Your task to perform on an android device: install app "DoorDash - Food Delivery" Image 0: 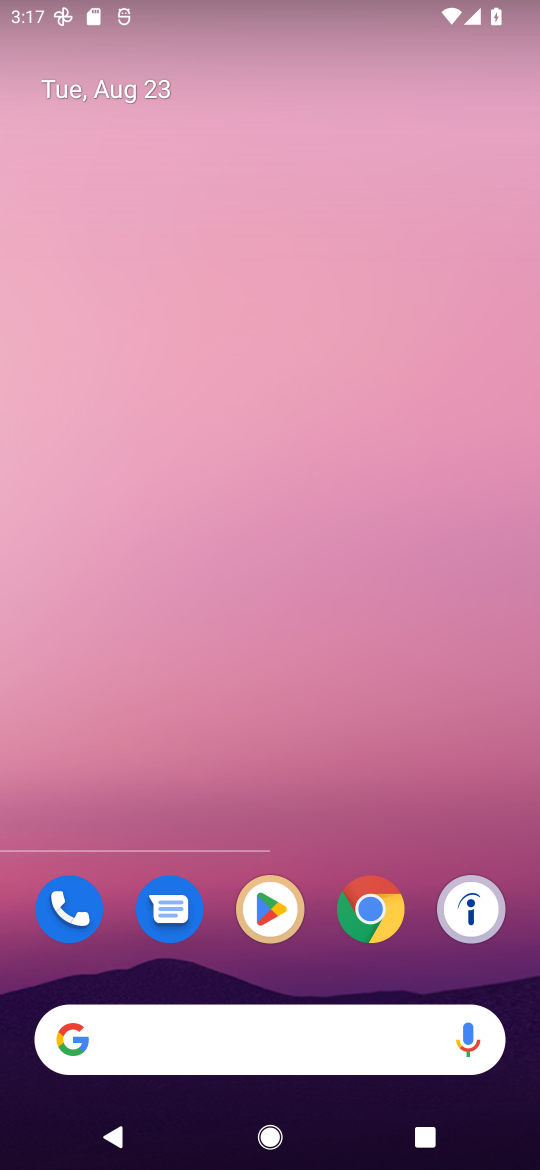
Step 0: press home button
Your task to perform on an android device: install app "DoorDash - Food Delivery" Image 1: 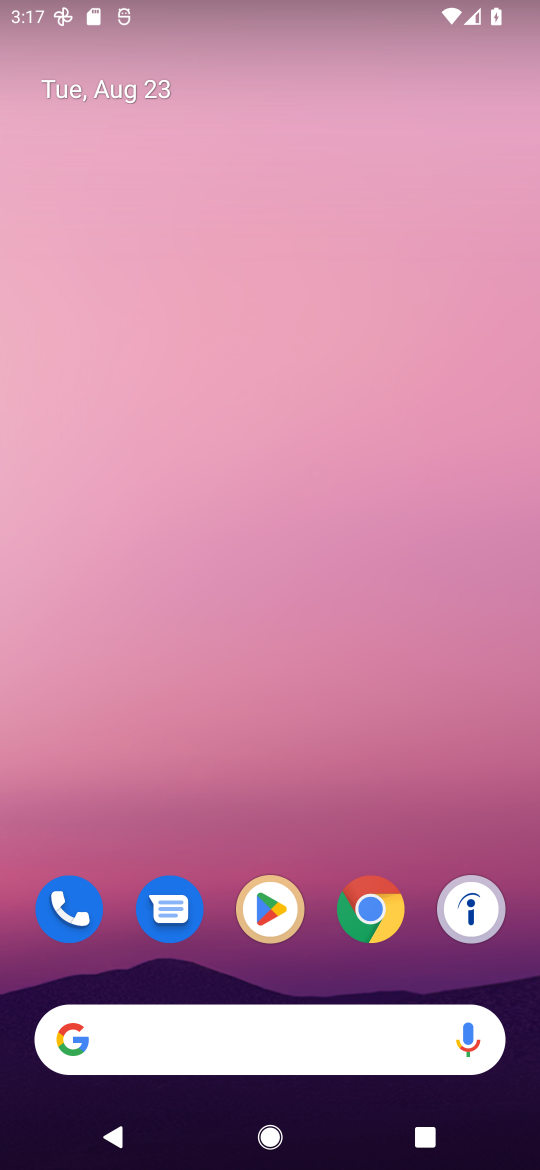
Step 1: click (262, 902)
Your task to perform on an android device: install app "DoorDash - Food Delivery" Image 2: 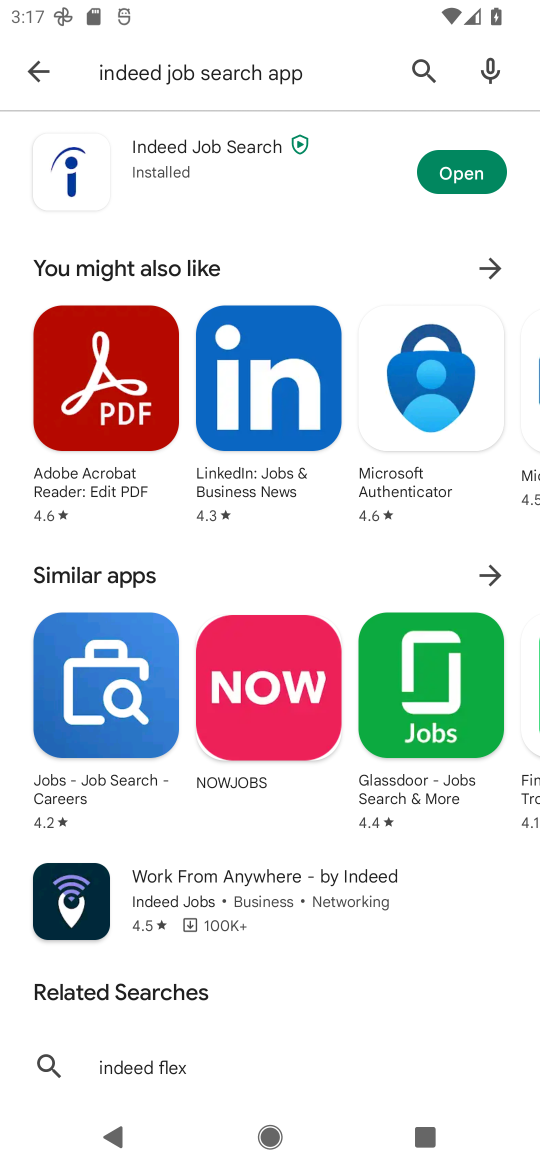
Step 2: click (410, 63)
Your task to perform on an android device: install app "DoorDash - Food Delivery" Image 3: 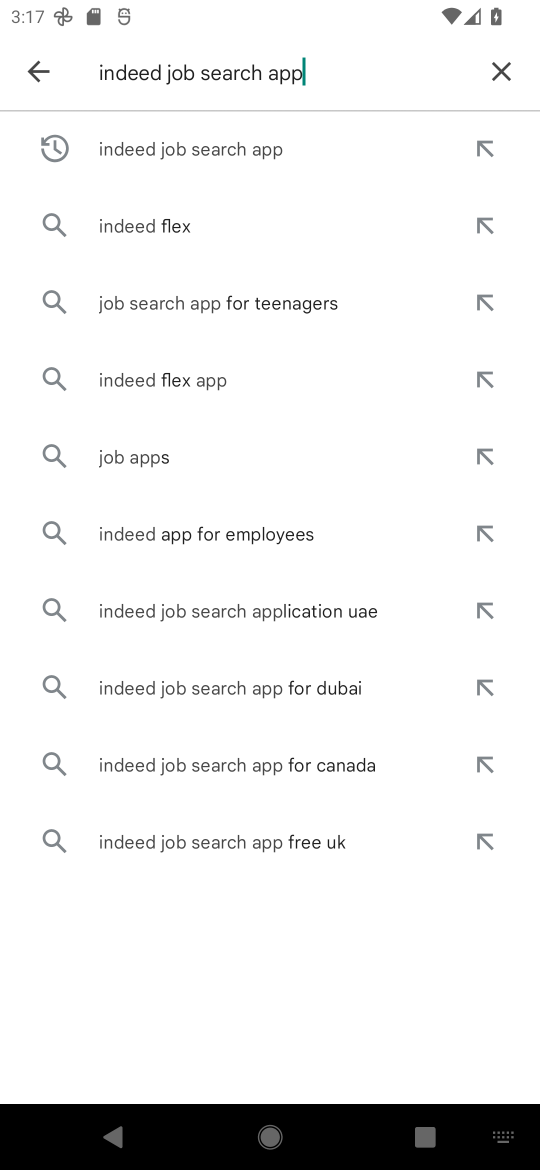
Step 3: click (502, 74)
Your task to perform on an android device: install app "DoorDash - Food Delivery" Image 4: 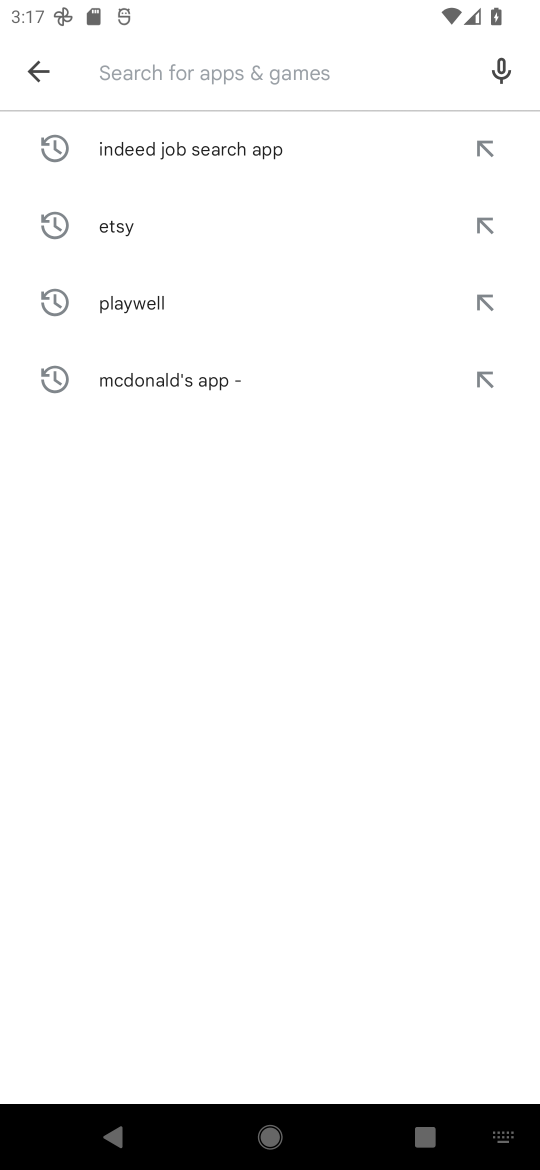
Step 4: type "DoorDash - Food Delivery"
Your task to perform on an android device: install app "DoorDash - Food Delivery" Image 5: 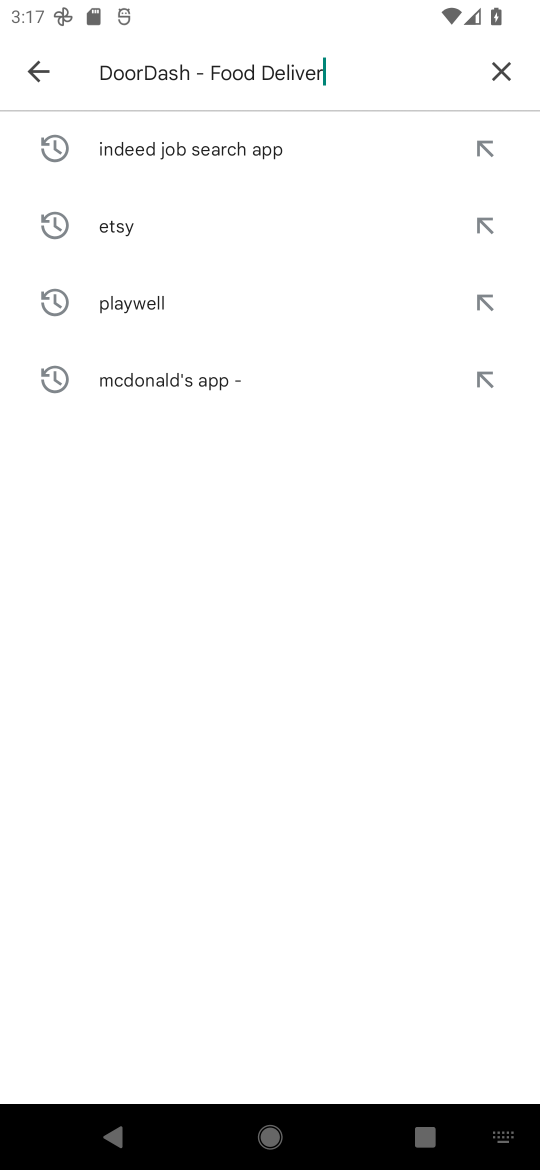
Step 5: type ""
Your task to perform on an android device: install app "DoorDash - Food Delivery" Image 6: 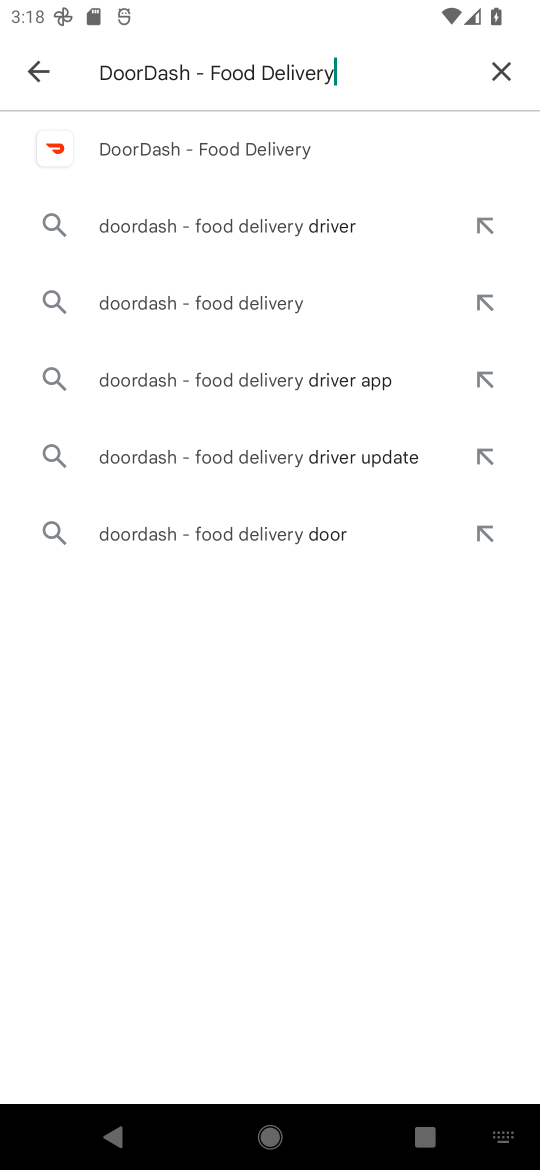
Step 6: click (261, 148)
Your task to perform on an android device: install app "DoorDash - Food Delivery" Image 7: 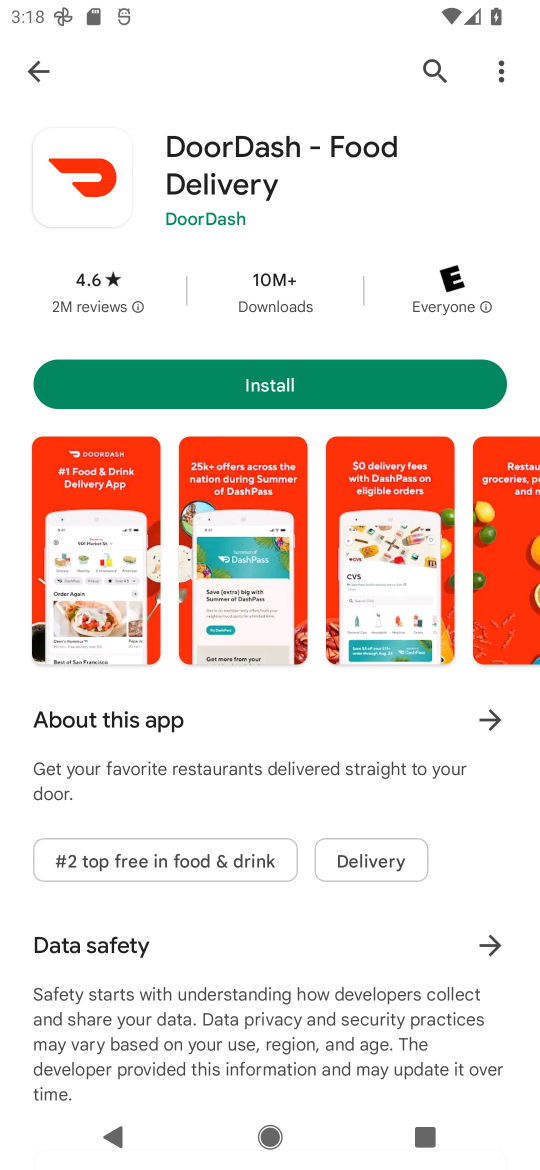
Step 7: click (268, 380)
Your task to perform on an android device: install app "DoorDash - Food Delivery" Image 8: 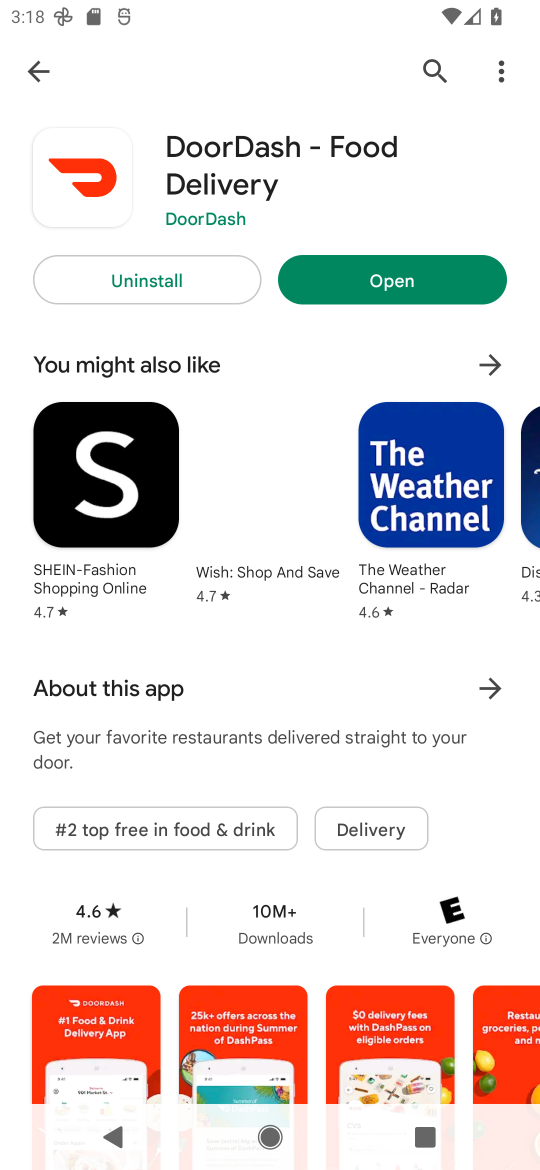
Step 8: click (397, 290)
Your task to perform on an android device: install app "DoorDash - Food Delivery" Image 9: 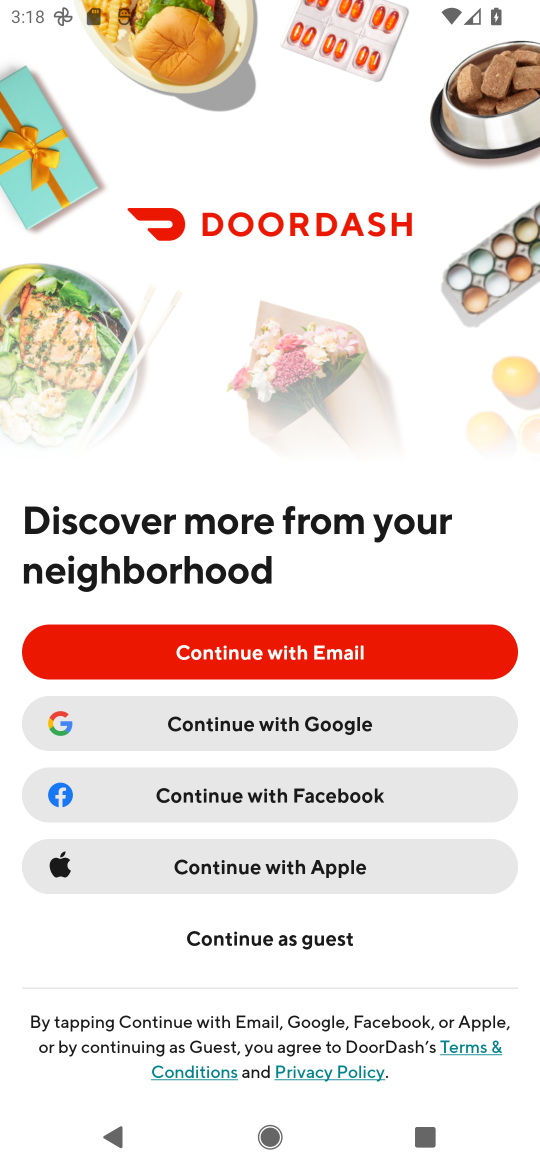
Step 9: click (259, 723)
Your task to perform on an android device: install app "DoorDash - Food Delivery" Image 10: 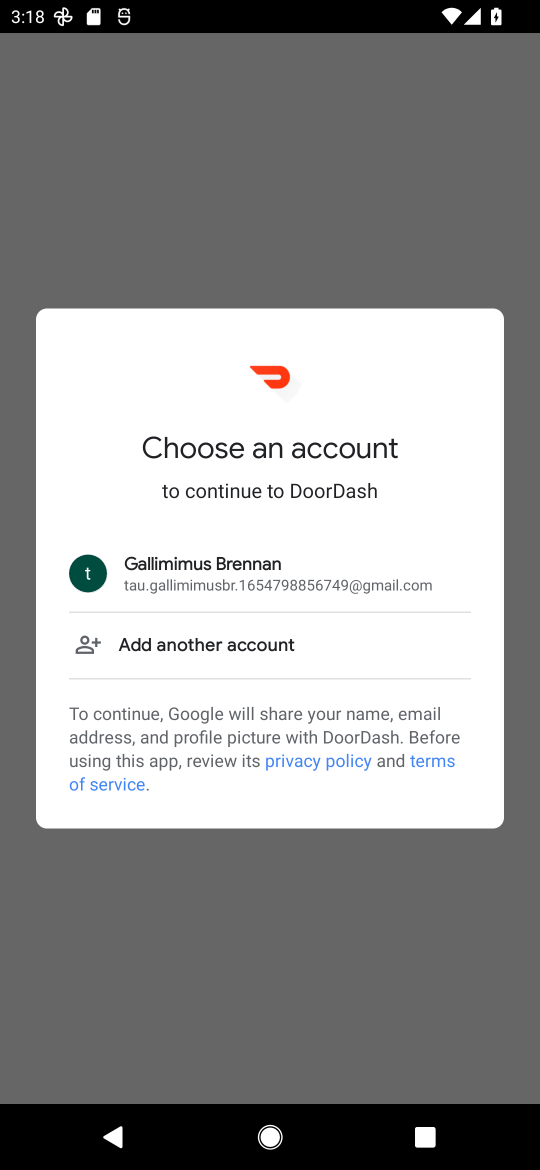
Step 10: click (180, 569)
Your task to perform on an android device: install app "DoorDash - Food Delivery" Image 11: 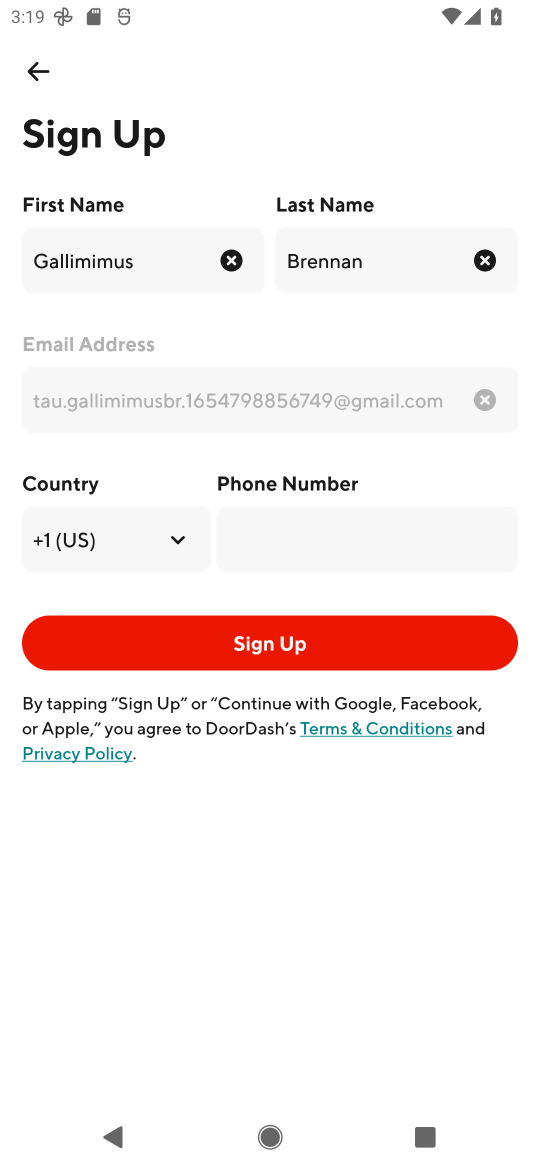
Step 11: task complete